Your task to perform on an android device: add a contact in the contacts app Image 0: 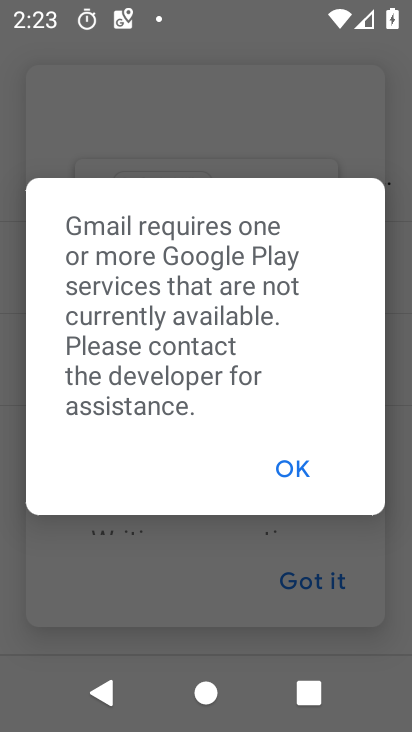
Step 0: press home button
Your task to perform on an android device: add a contact in the contacts app Image 1: 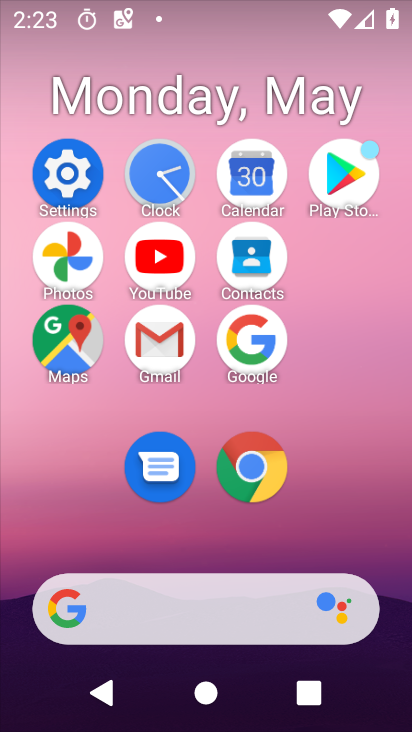
Step 1: click (263, 269)
Your task to perform on an android device: add a contact in the contacts app Image 2: 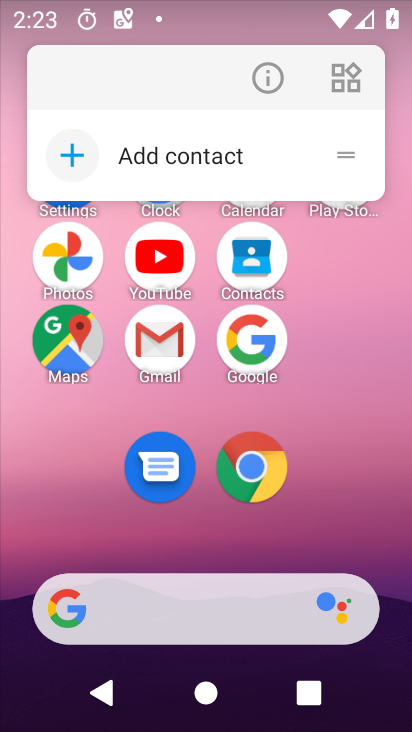
Step 2: click (259, 253)
Your task to perform on an android device: add a contact in the contacts app Image 3: 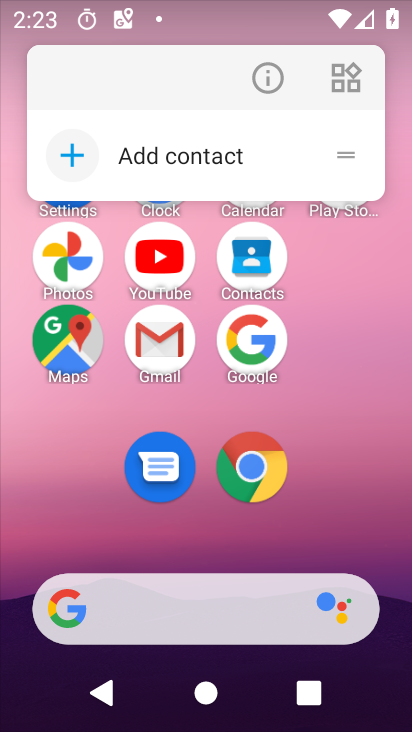
Step 3: click (267, 263)
Your task to perform on an android device: add a contact in the contacts app Image 4: 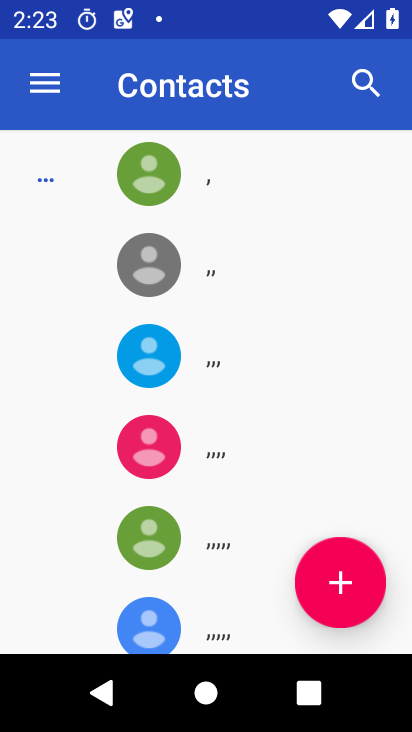
Step 4: click (358, 587)
Your task to perform on an android device: add a contact in the contacts app Image 5: 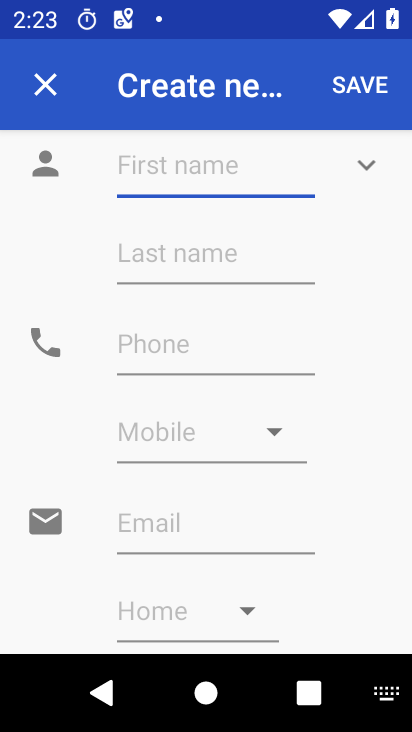
Step 5: click (151, 172)
Your task to perform on an android device: add a contact in the contacts app Image 6: 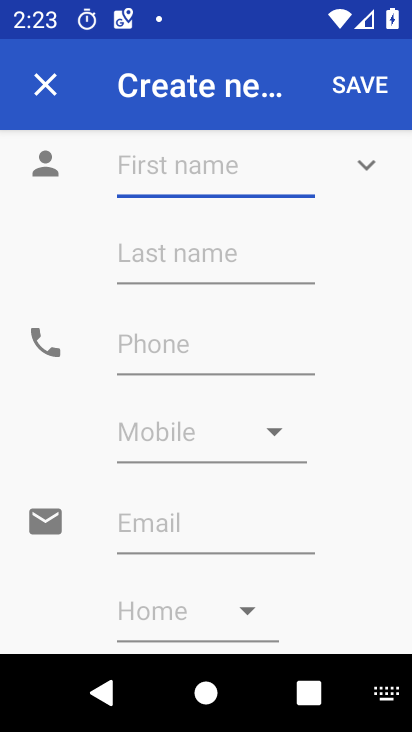
Step 6: type "dder"
Your task to perform on an android device: add a contact in the contacts app Image 7: 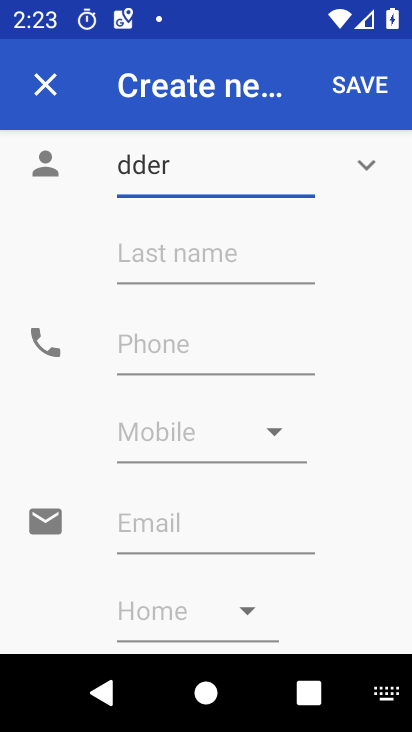
Step 7: click (197, 346)
Your task to perform on an android device: add a contact in the contacts app Image 8: 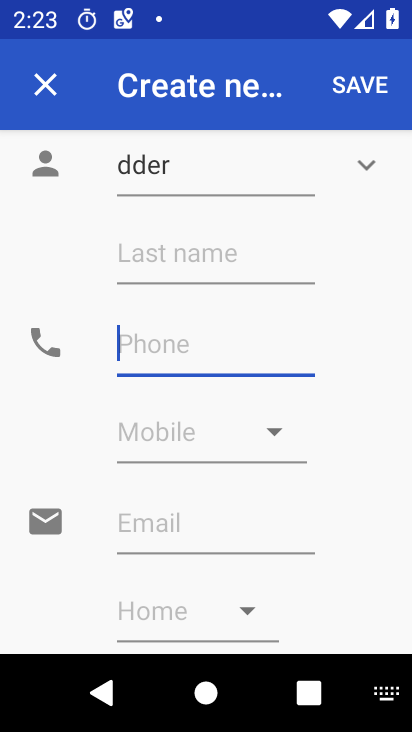
Step 8: type "3322112323"
Your task to perform on an android device: add a contact in the contacts app Image 9: 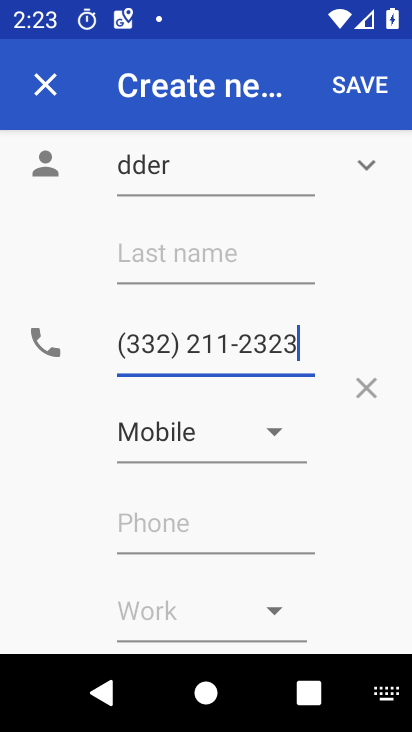
Step 9: click (374, 85)
Your task to perform on an android device: add a contact in the contacts app Image 10: 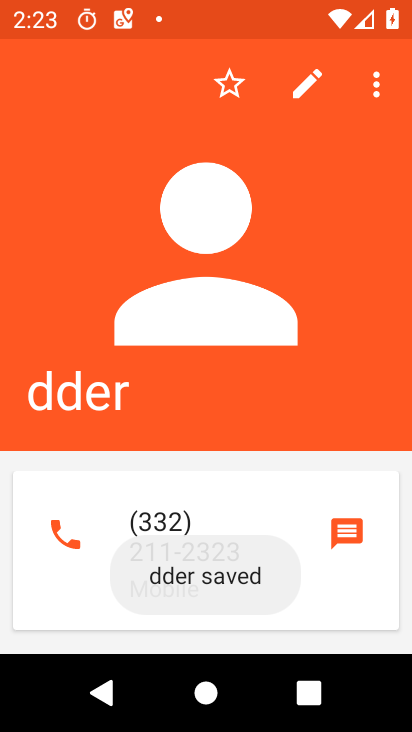
Step 10: task complete